Your task to perform on an android device: empty trash in the gmail app Image 0: 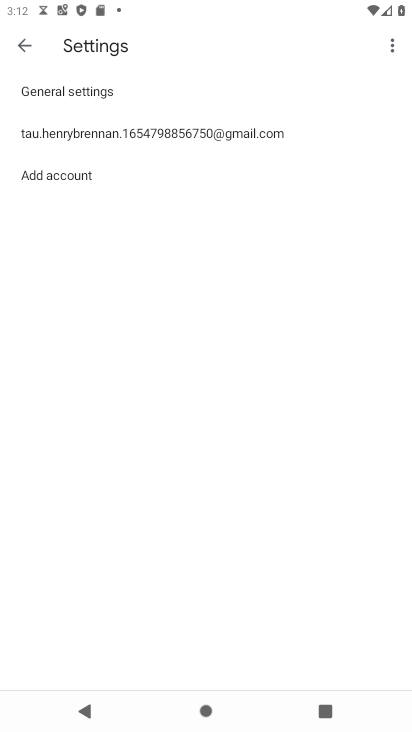
Step 0: press home button
Your task to perform on an android device: empty trash in the gmail app Image 1: 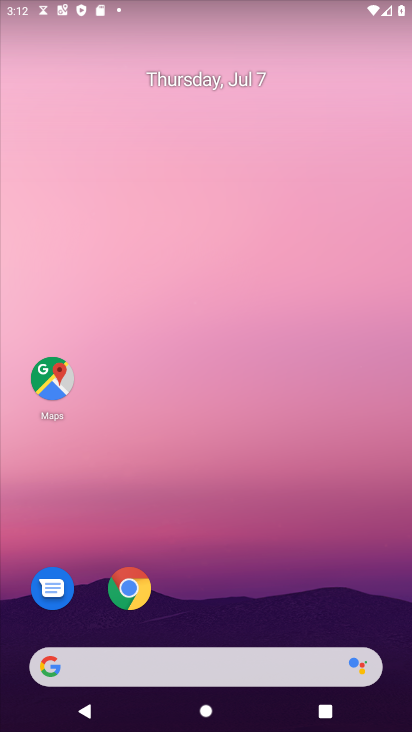
Step 1: drag from (226, 616) to (191, 235)
Your task to perform on an android device: empty trash in the gmail app Image 2: 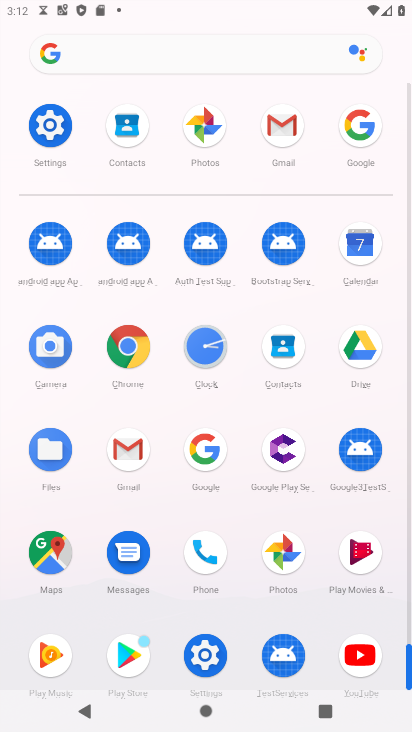
Step 2: click (281, 124)
Your task to perform on an android device: empty trash in the gmail app Image 3: 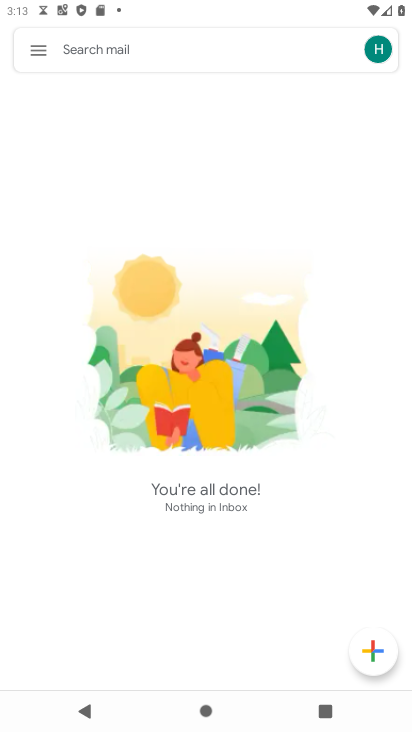
Step 3: click (41, 52)
Your task to perform on an android device: empty trash in the gmail app Image 4: 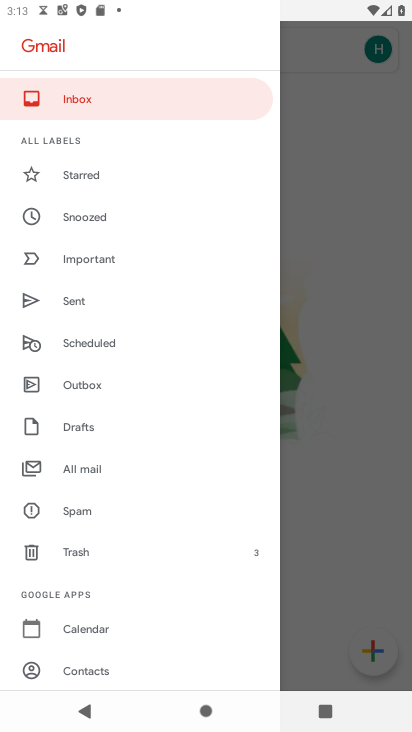
Step 4: drag from (87, 586) to (131, 494)
Your task to perform on an android device: empty trash in the gmail app Image 5: 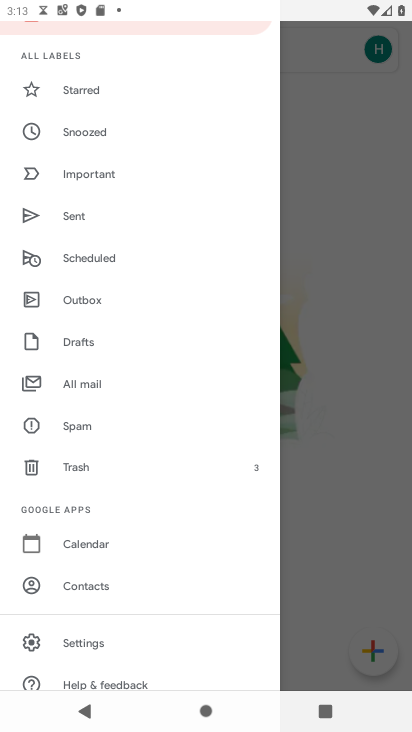
Step 5: drag from (93, 606) to (112, 529)
Your task to perform on an android device: empty trash in the gmail app Image 6: 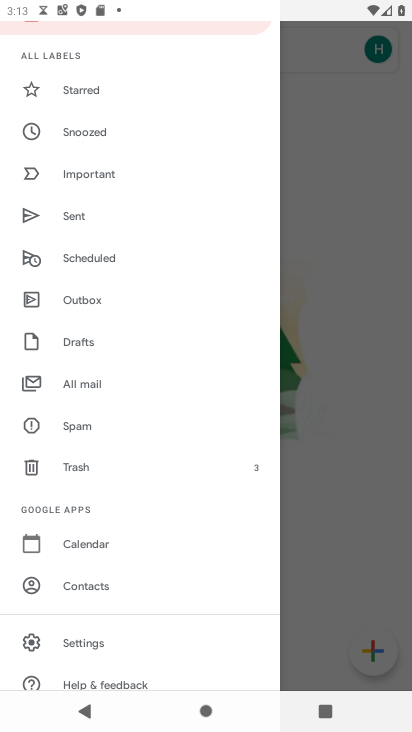
Step 6: click (82, 458)
Your task to perform on an android device: empty trash in the gmail app Image 7: 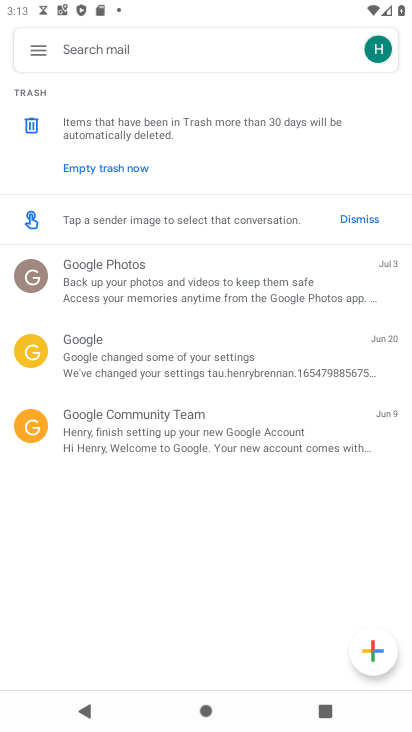
Step 7: click (135, 173)
Your task to perform on an android device: empty trash in the gmail app Image 8: 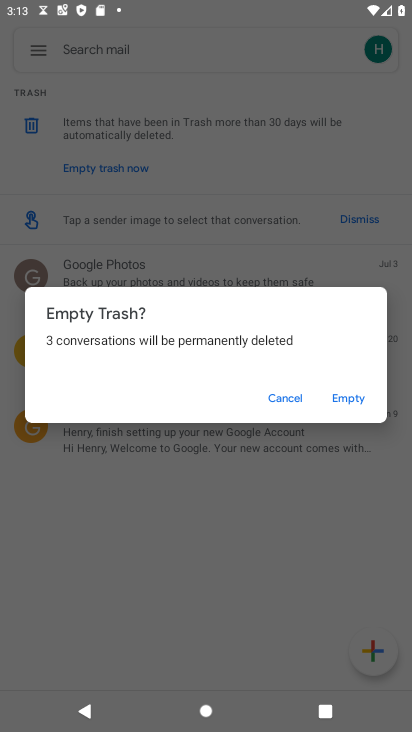
Step 8: click (344, 402)
Your task to perform on an android device: empty trash in the gmail app Image 9: 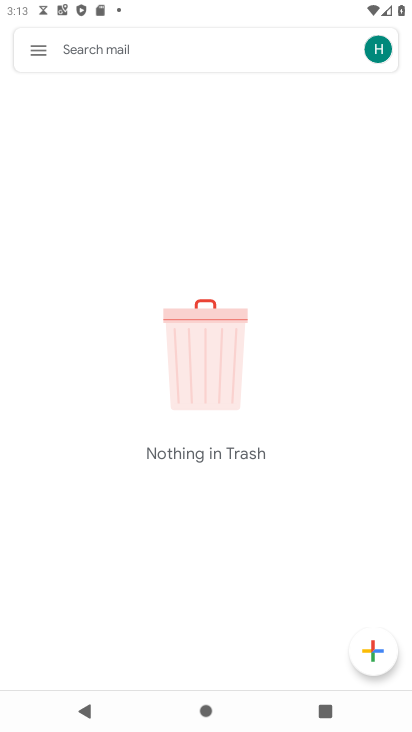
Step 9: task complete